Your task to perform on an android device: Open battery settings Image 0: 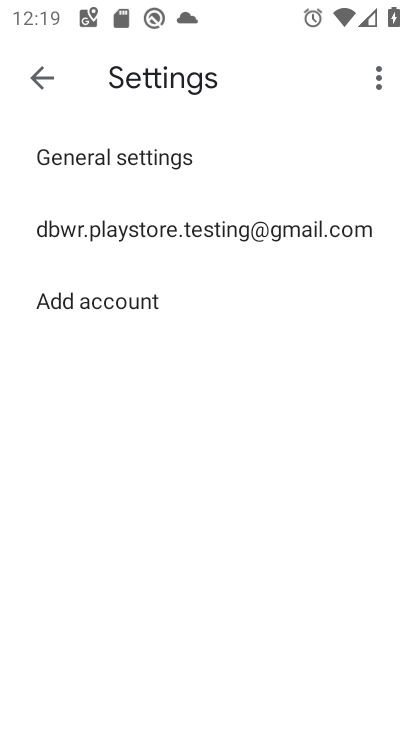
Step 0: press home button
Your task to perform on an android device: Open battery settings Image 1: 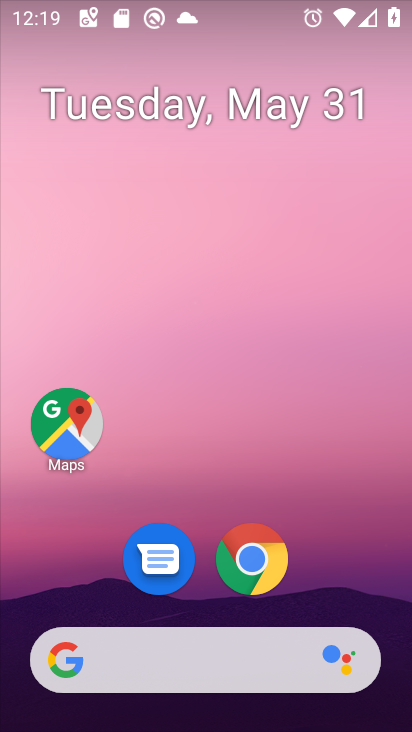
Step 1: drag from (376, 600) to (268, 127)
Your task to perform on an android device: Open battery settings Image 2: 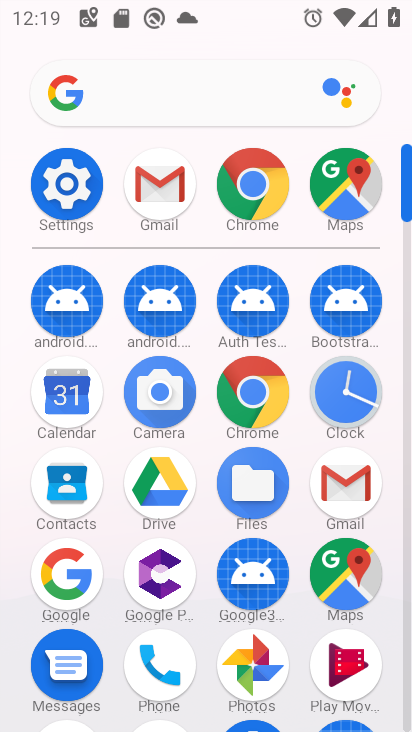
Step 2: click (78, 184)
Your task to perform on an android device: Open battery settings Image 3: 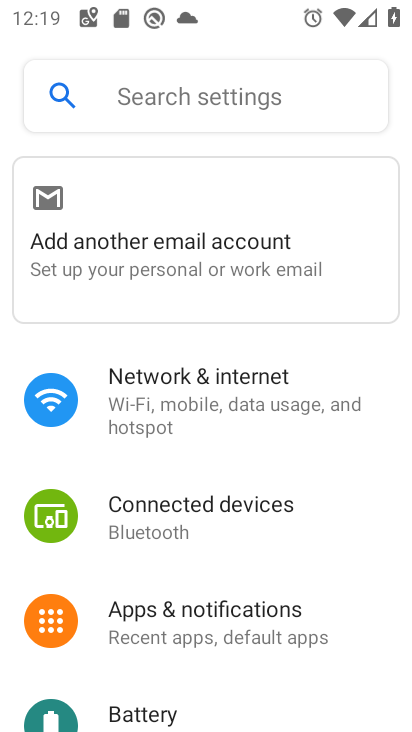
Step 3: drag from (230, 669) to (186, 319)
Your task to perform on an android device: Open battery settings Image 4: 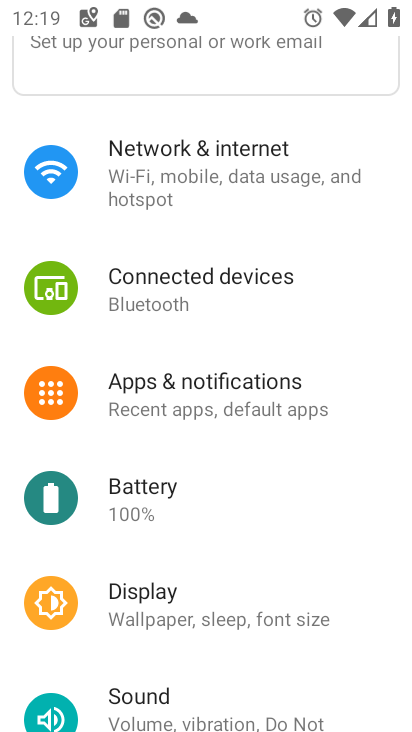
Step 4: click (214, 508)
Your task to perform on an android device: Open battery settings Image 5: 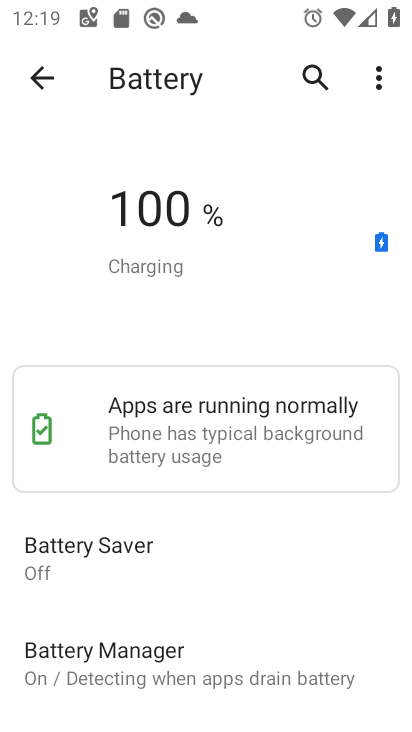
Step 5: task complete